Your task to perform on an android device: delete browsing data in the chrome app Image 0: 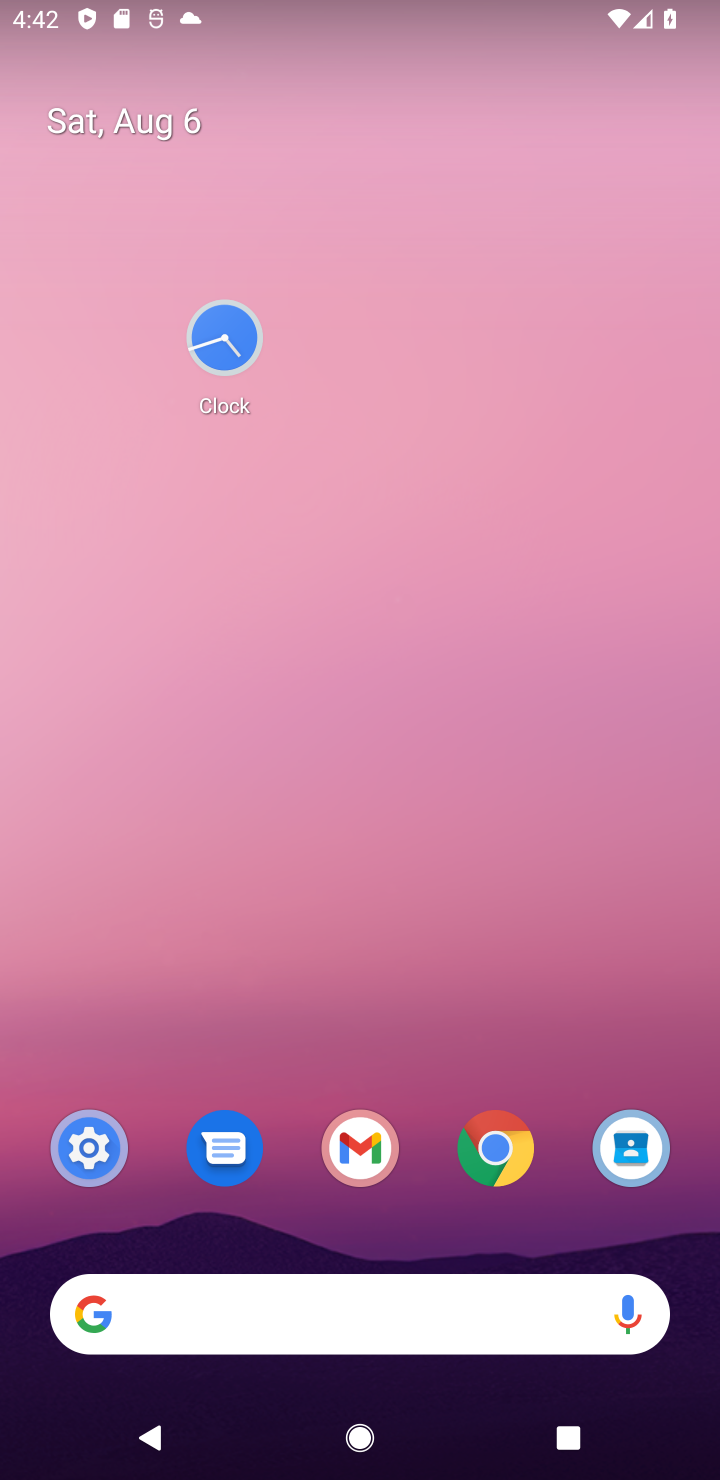
Step 0: drag from (291, 1021) to (391, 339)
Your task to perform on an android device: delete browsing data in the chrome app Image 1: 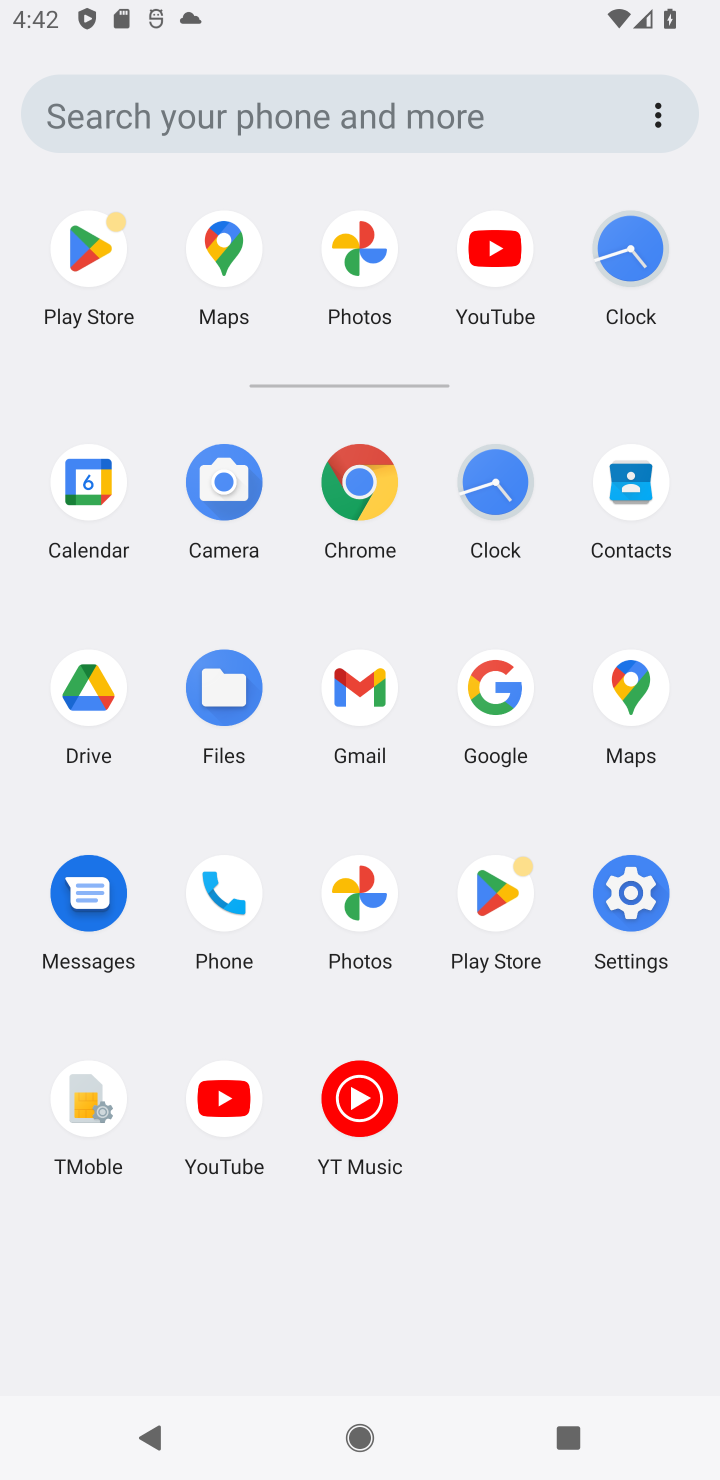
Step 1: click (367, 471)
Your task to perform on an android device: delete browsing data in the chrome app Image 2: 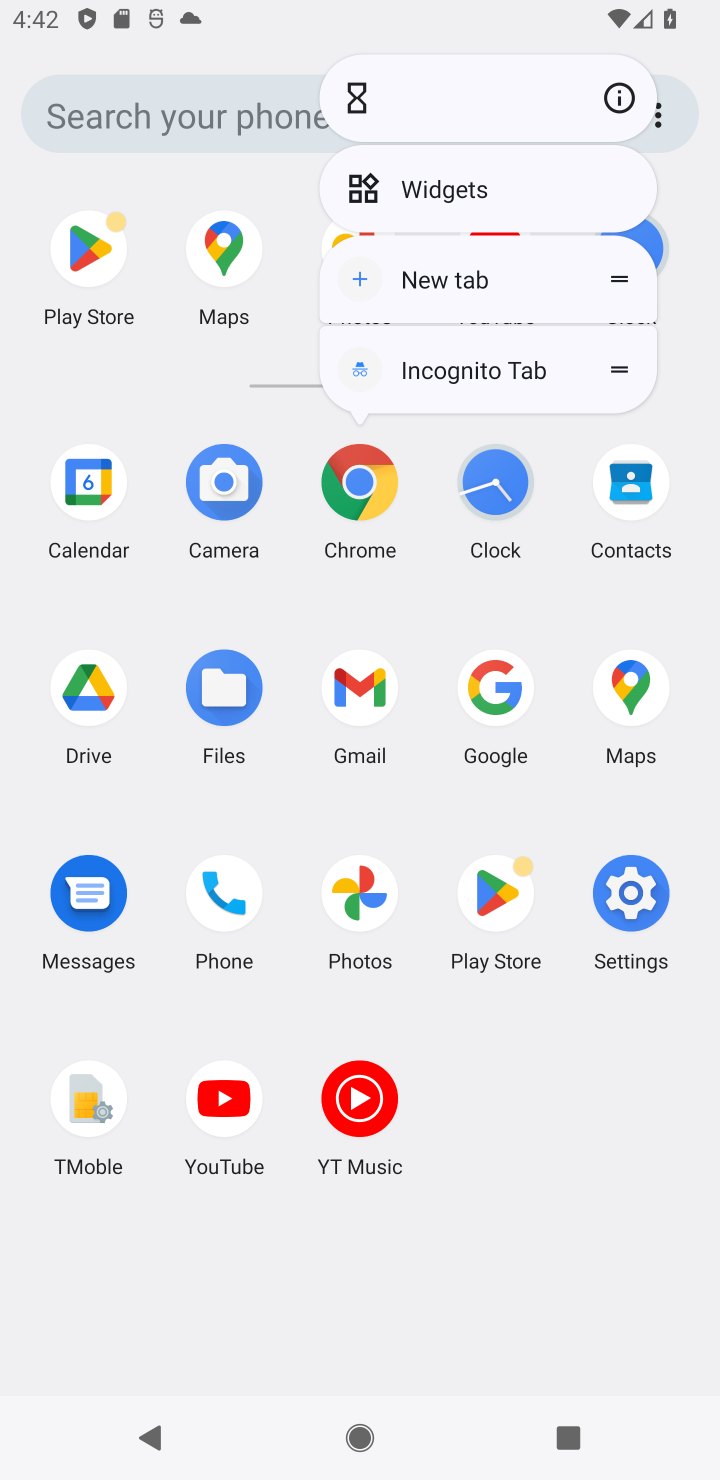
Step 2: click (368, 484)
Your task to perform on an android device: delete browsing data in the chrome app Image 3: 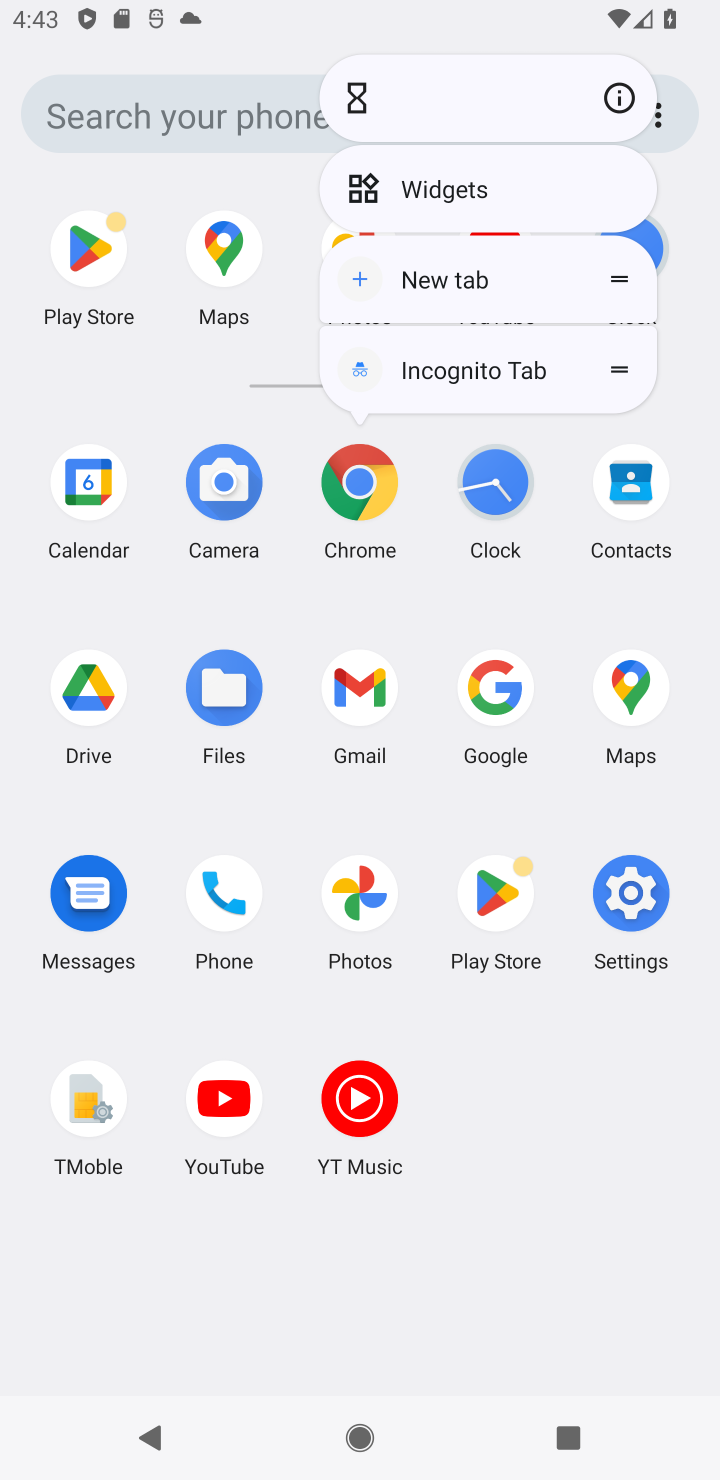
Step 3: click (354, 455)
Your task to perform on an android device: delete browsing data in the chrome app Image 4: 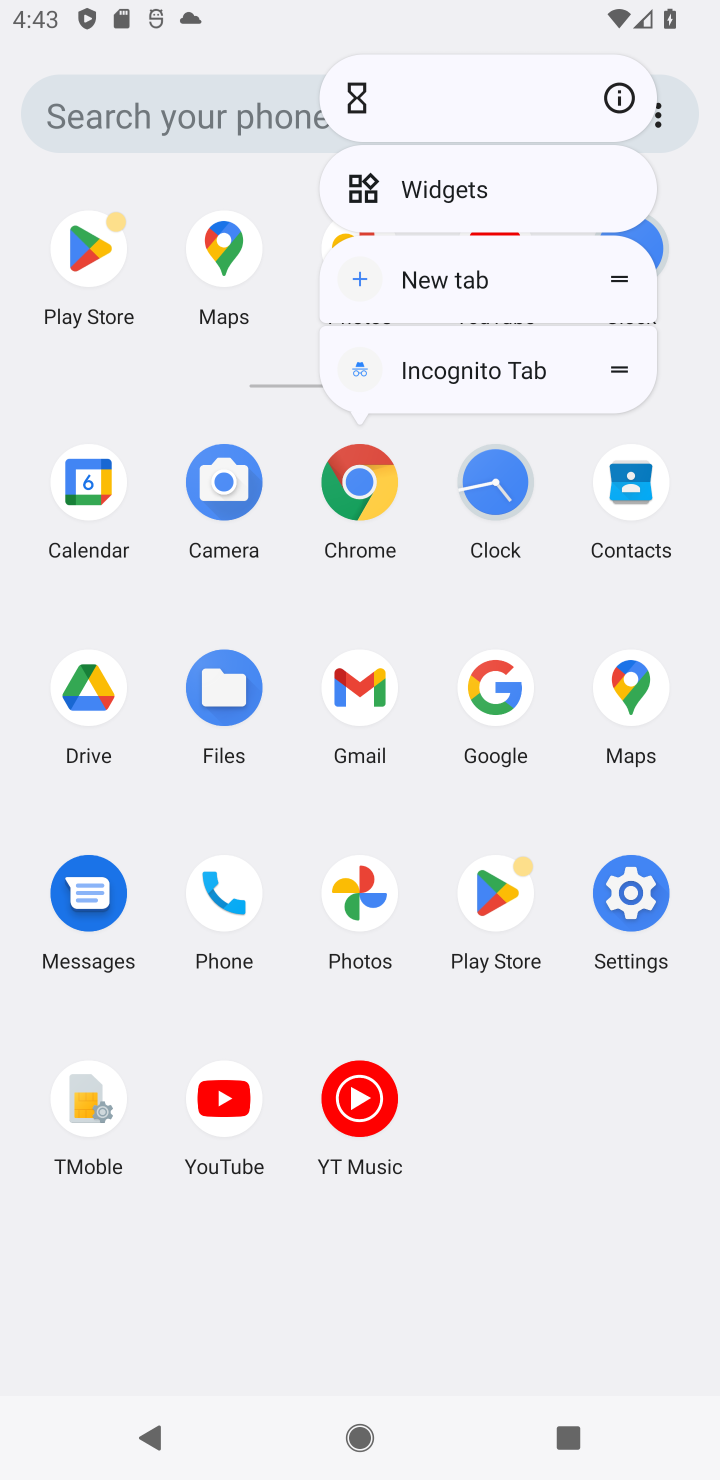
Step 4: click (356, 457)
Your task to perform on an android device: delete browsing data in the chrome app Image 5: 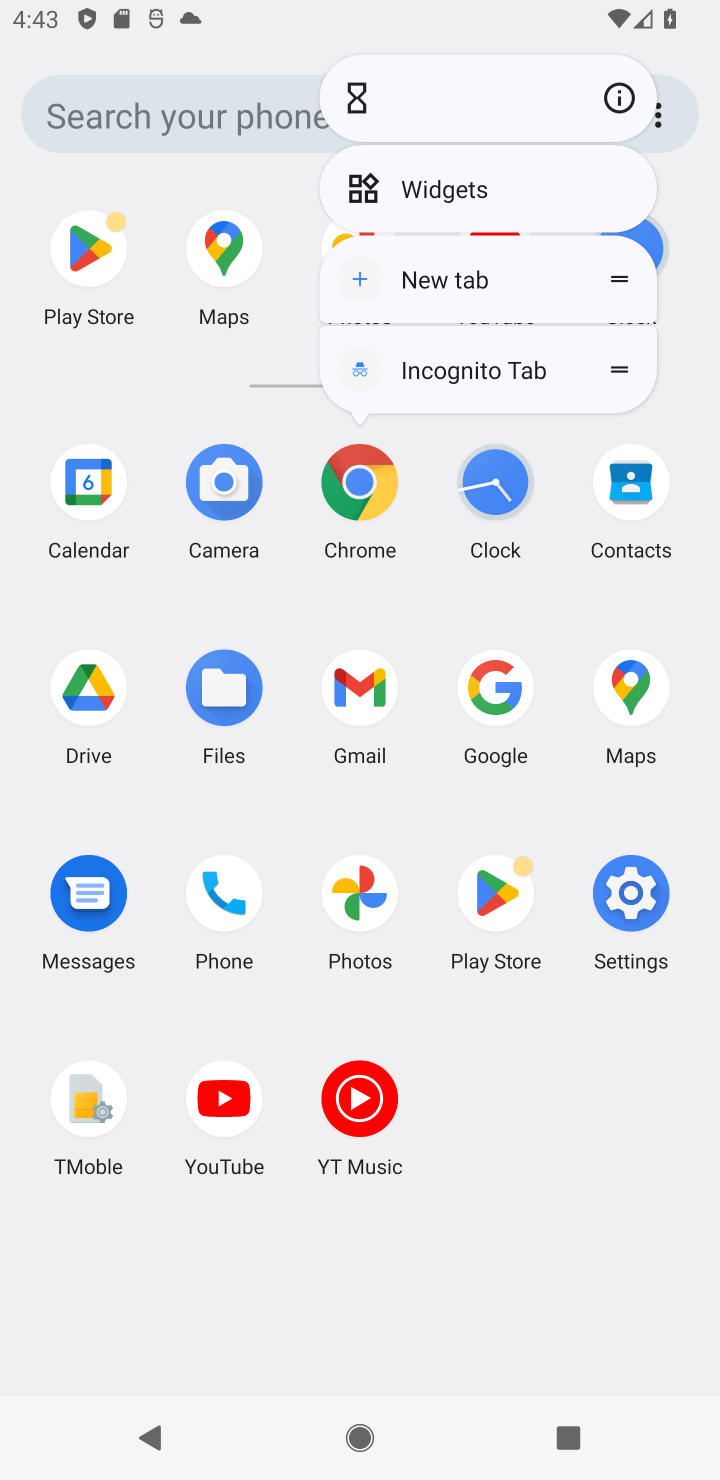
Step 5: click (364, 479)
Your task to perform on an android device: delete browsing data in the chrome app Image 6: 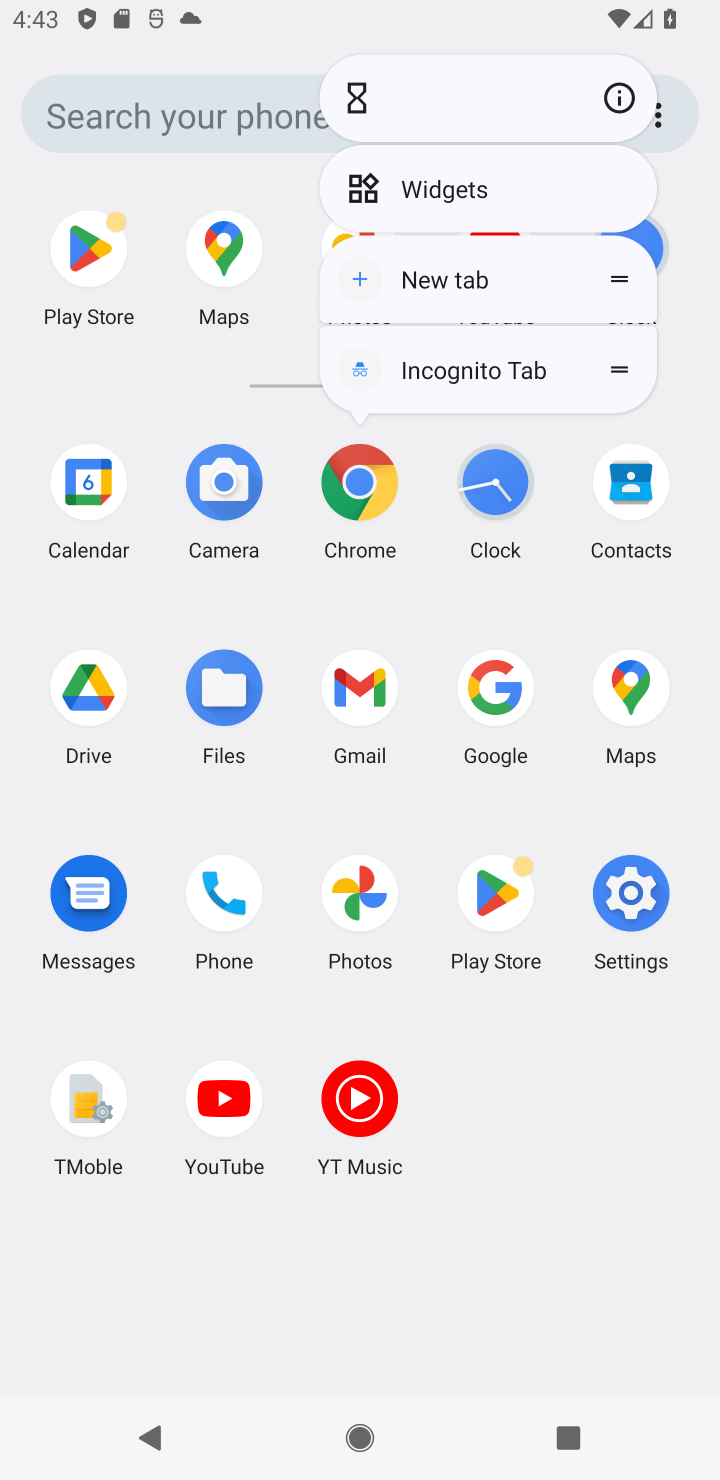
Step 6: click (364, 479)
Your task to perform on an android device: delete browsing data in the chrome app Image 7: 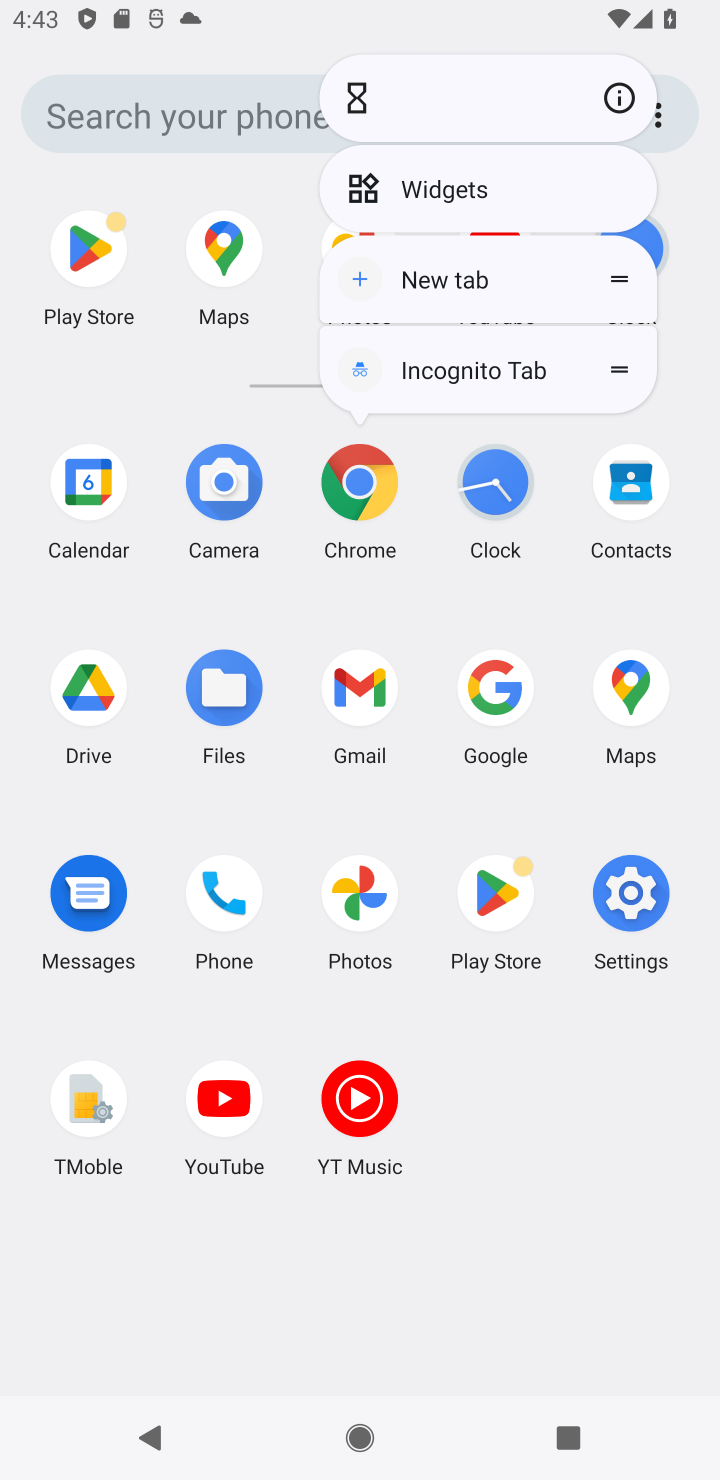
Step 7: click (624, 88)
Your task to perform on an android device: delete browsing data in the chrome app Image 8: 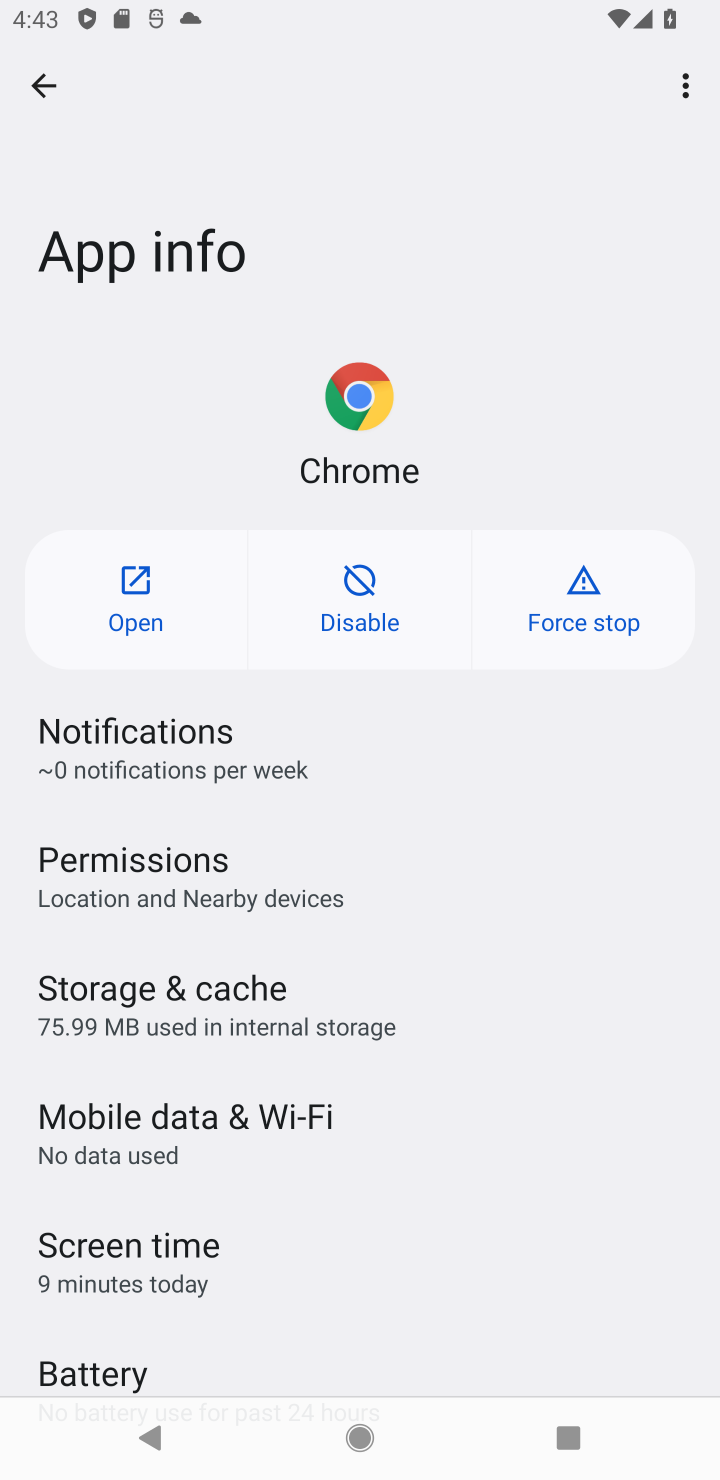
Step 8: click (103, 589)
Your task to perform on an android device: delete browsing data in the chrome app Image 9: 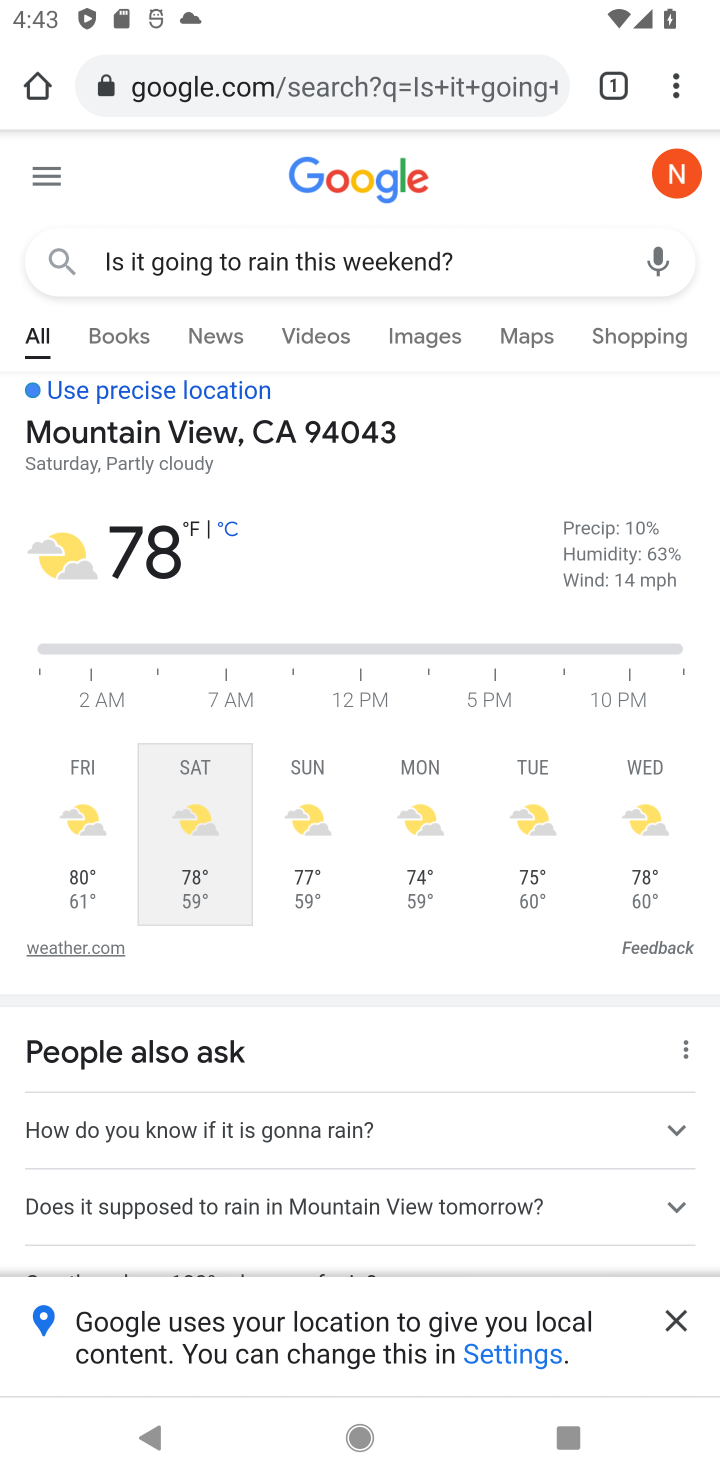
Step 9: drag from (665, 80) to (437, 440)
Your task to perform on an android device: delete browsing data in the chrome app Image 10: 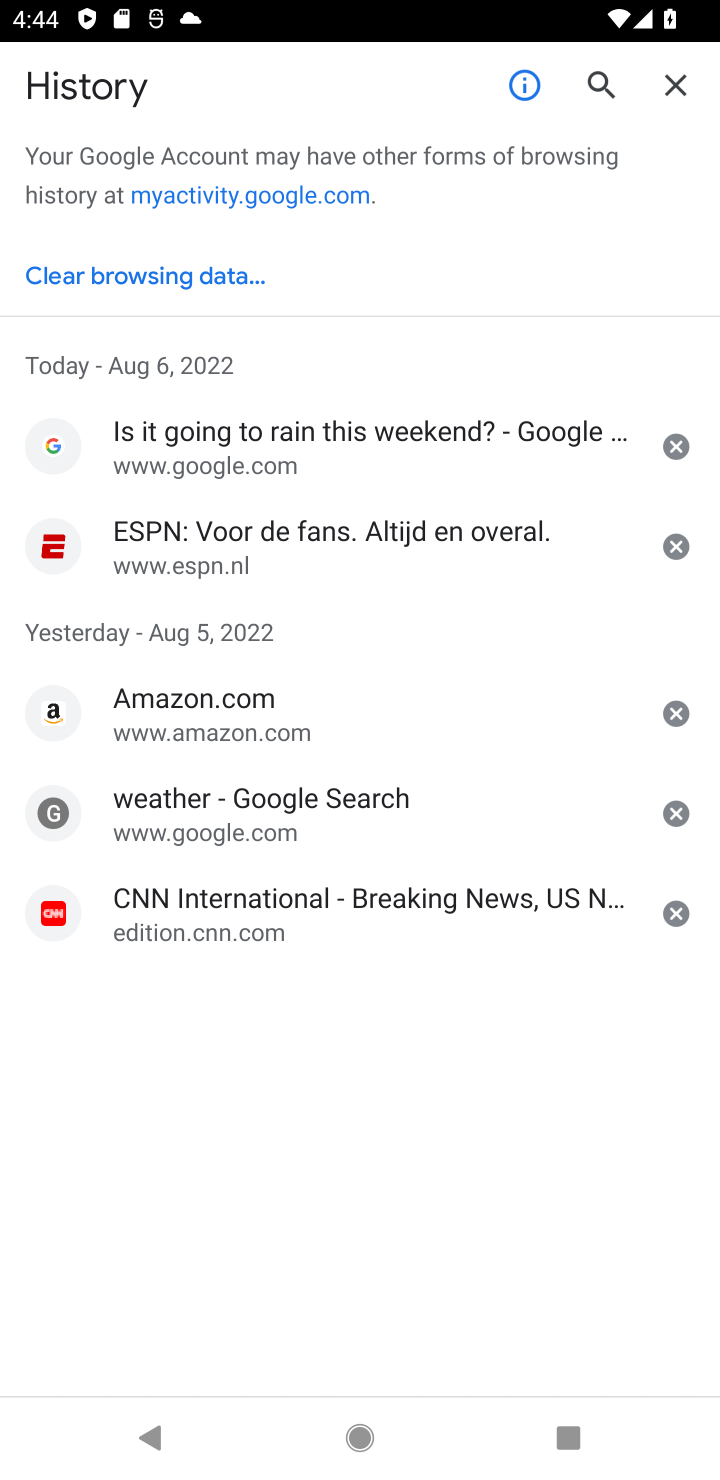
Step 10: drag from (314, 1035) to (378, 583)
Your task to perform on an android device: delete browsing data in the chrome app Image 11: 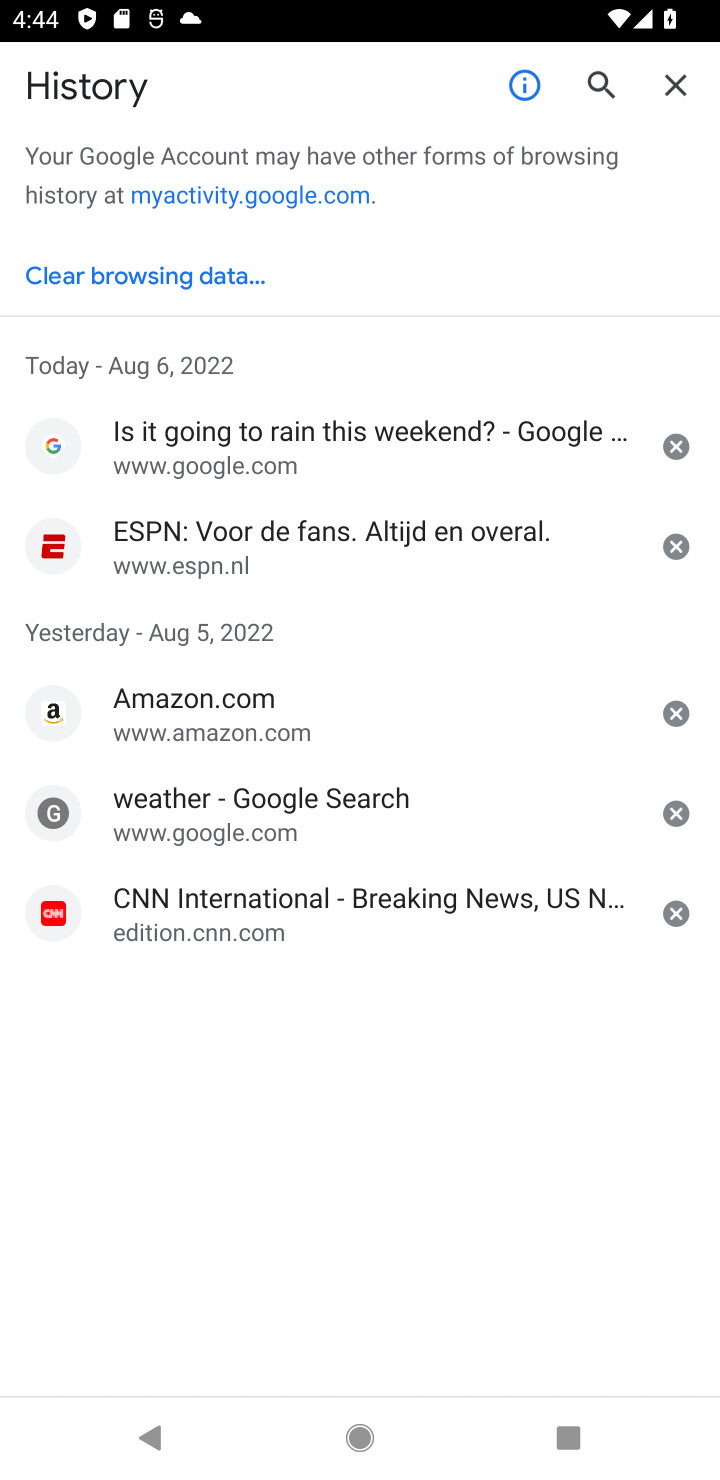
Step 11: click (114, 270)
Your task to perform on an android device: delete browsing data in the chrome app Image 12: 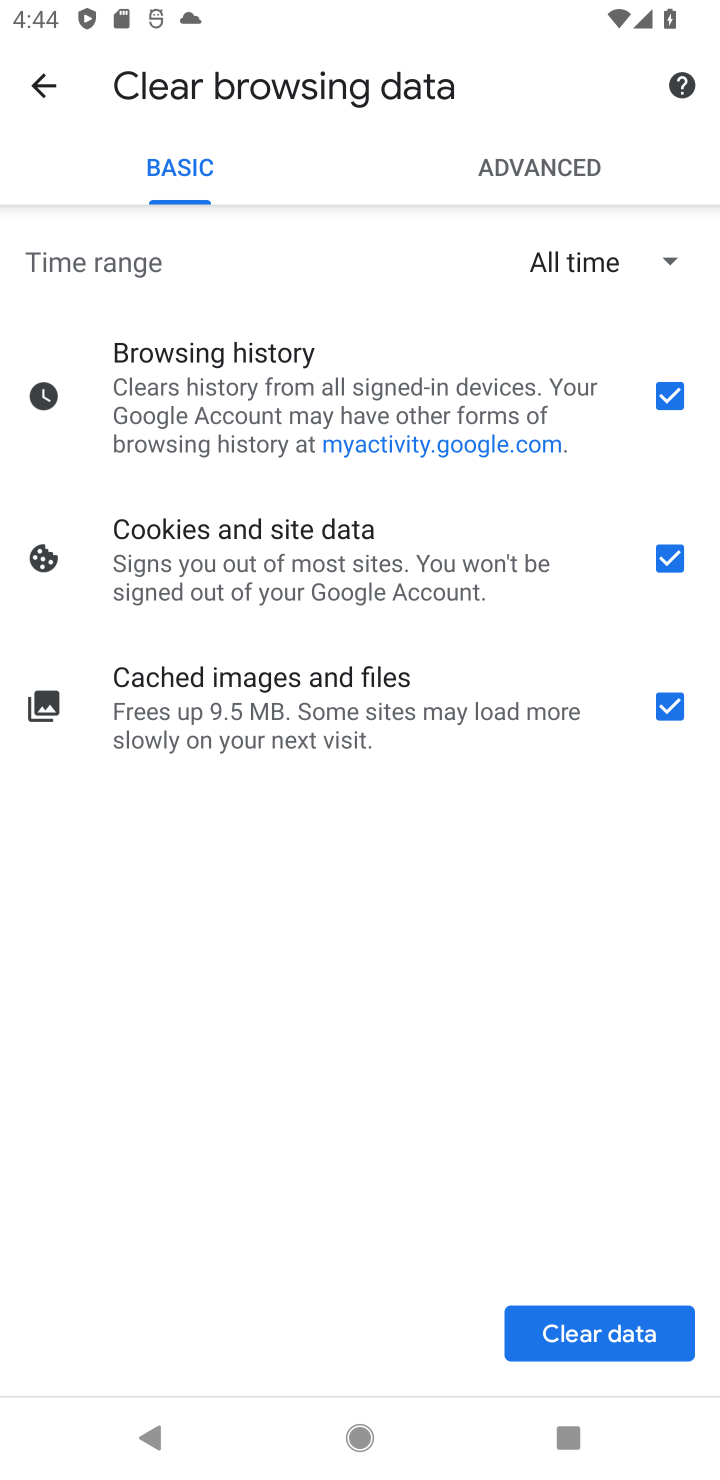
Step 12: click (575, 1326)
Your task to perform on an android device: delete browsing data in the chrome app Image 13: 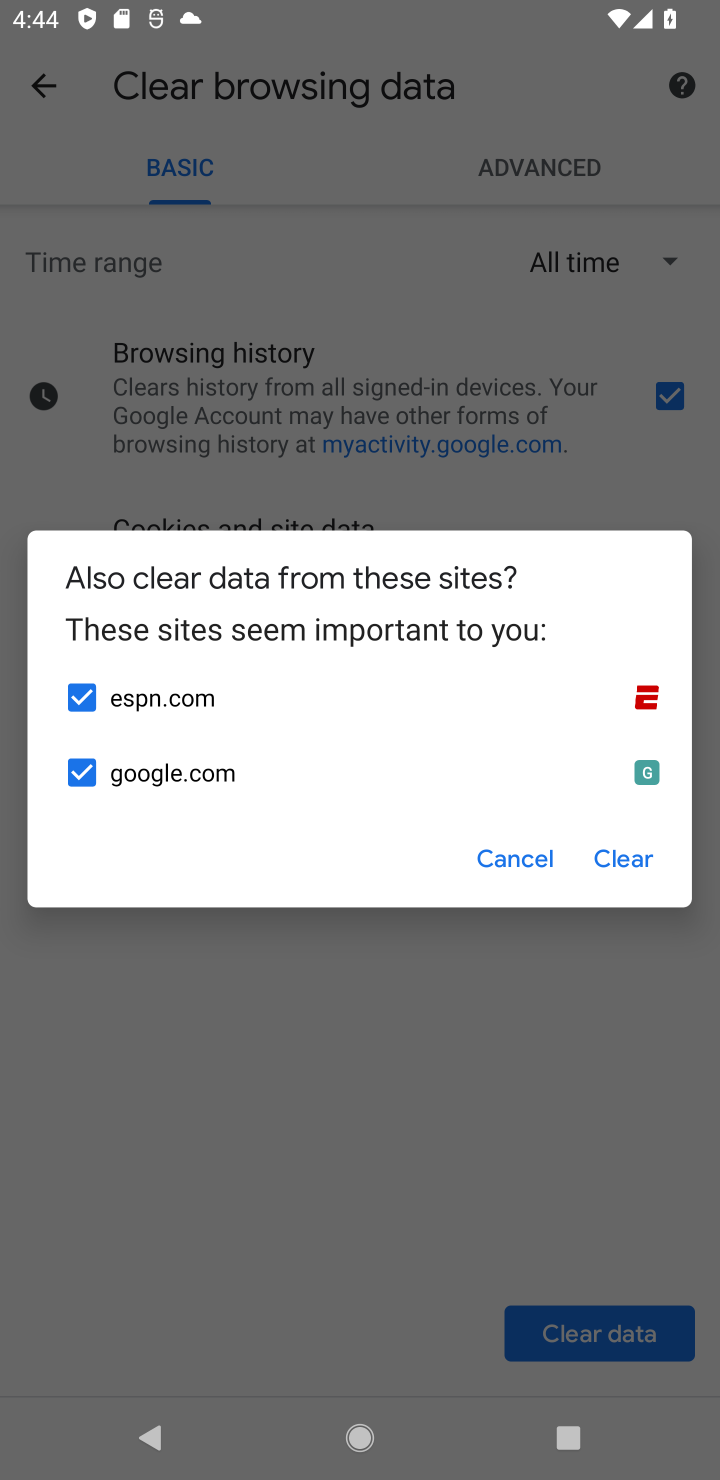
Step 13: click (638, 877)
Your task to perform on an android device: delete browsing data in the chrome app Image 14: 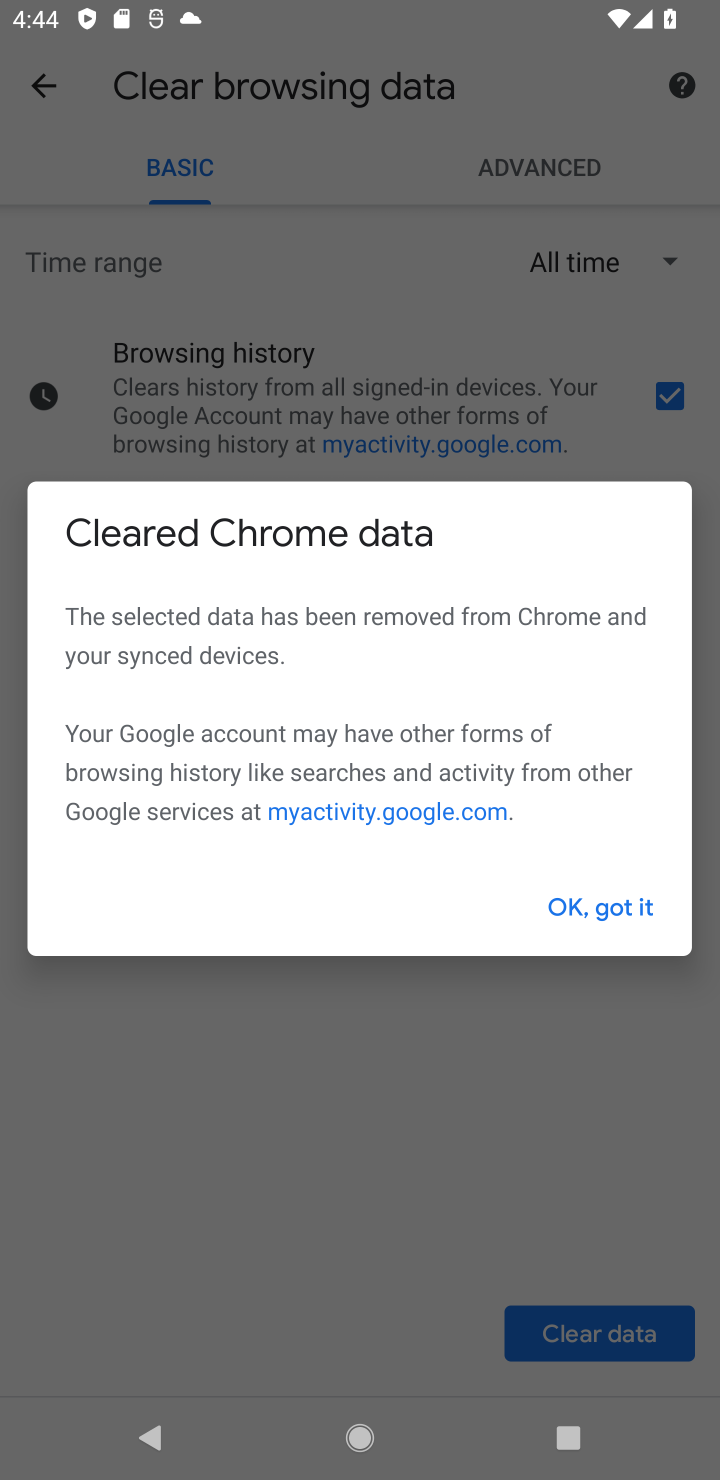
Step 14: click (614, 909)
Your task to perform on an android device: delete browsing data in the chrome app Image 15: 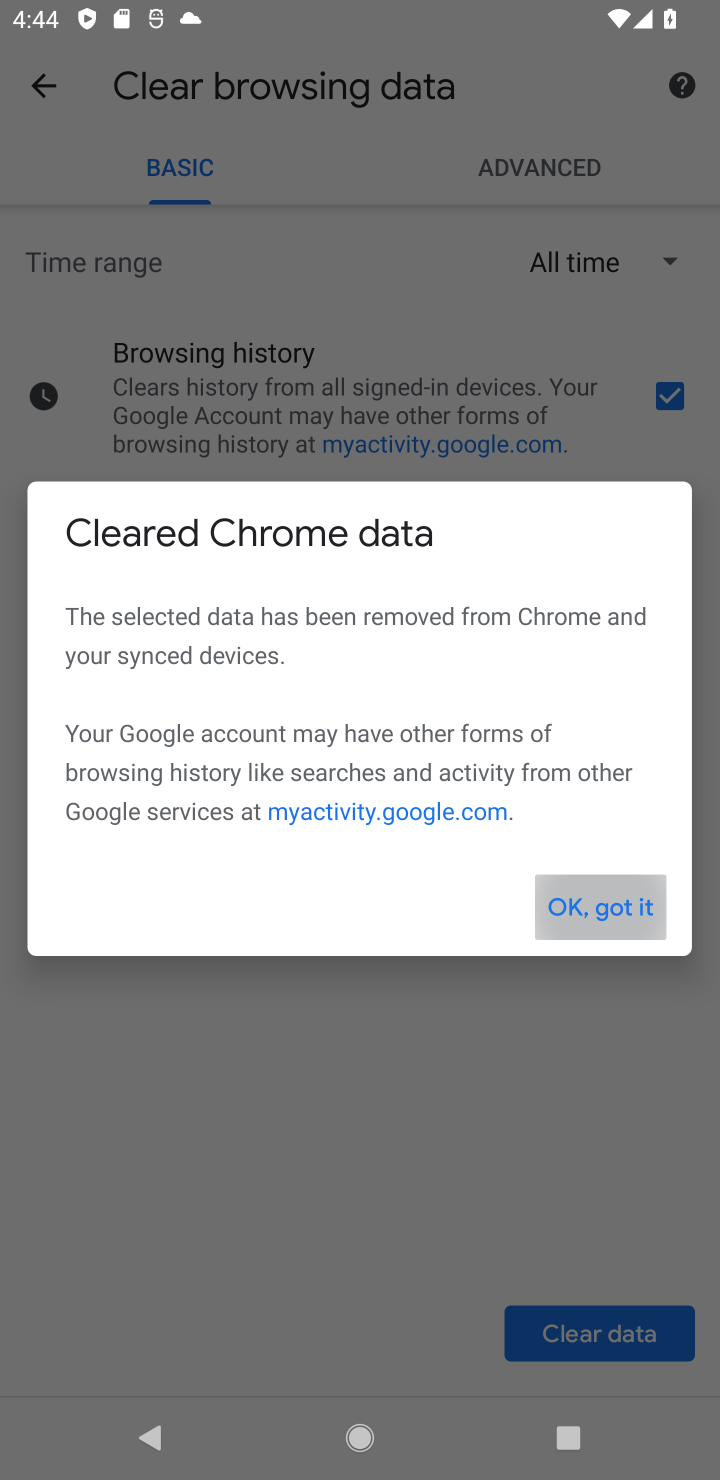
Step 15: task complete